Your task to perform on an android device: open app "Indeed Job Search" Image 0: 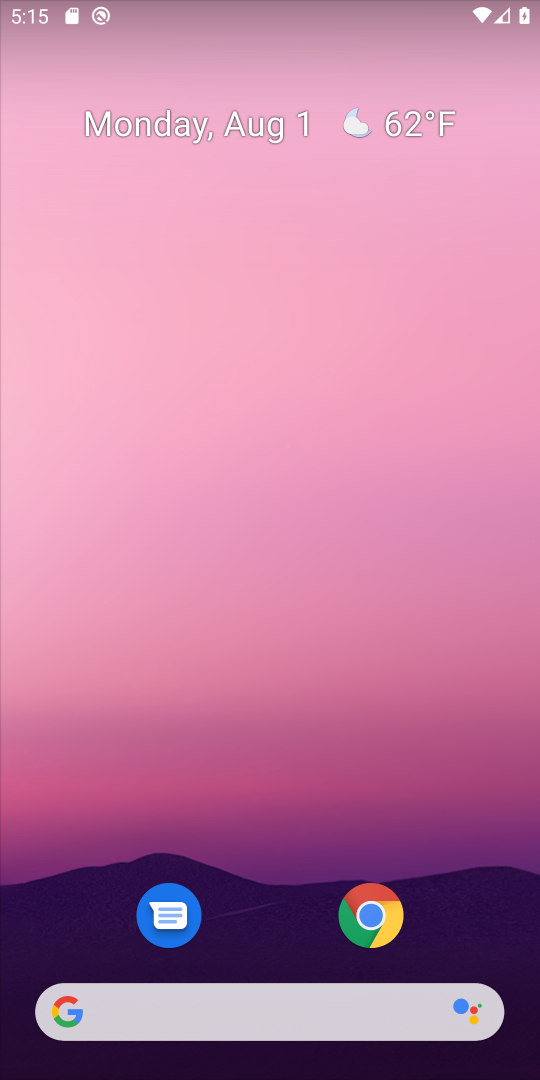
Step 0: drag from (67, 893) to (226, 18)
Your task to perform on an android device: open app "Indeed Job Search" Image 1: 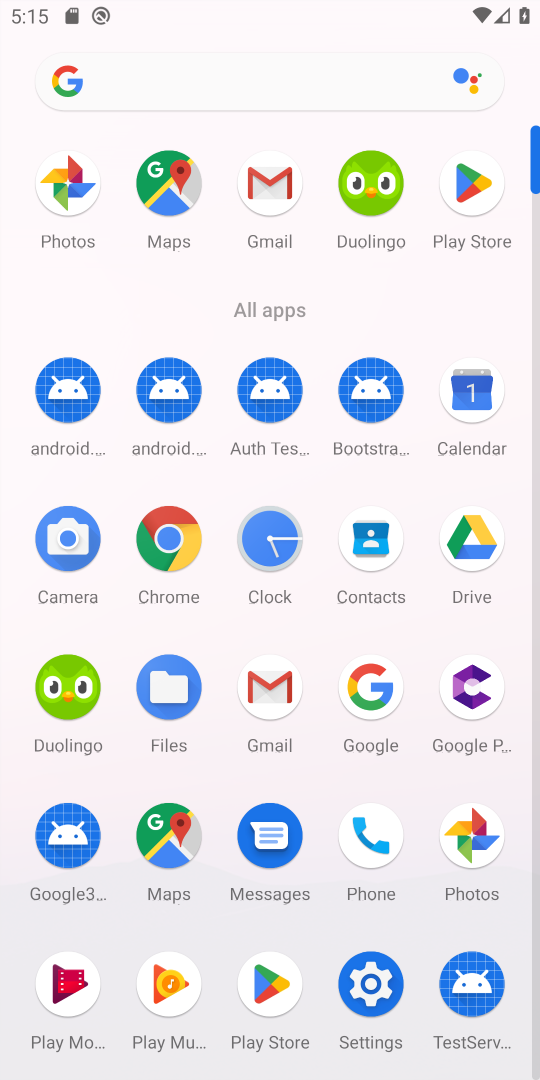
Step 1: click (471, 185)
Your task to perform on an android device: open app "Indeed Job Search" Image 2: 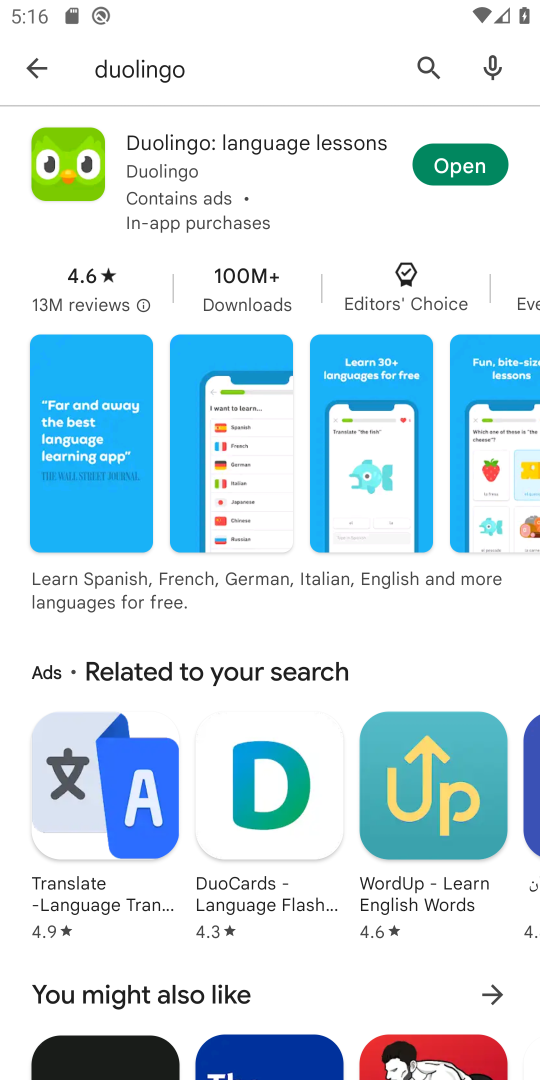
Step 2: click (415, 52)
Your task to perform on an android device: open app "Indeed Job Search" Image 3: 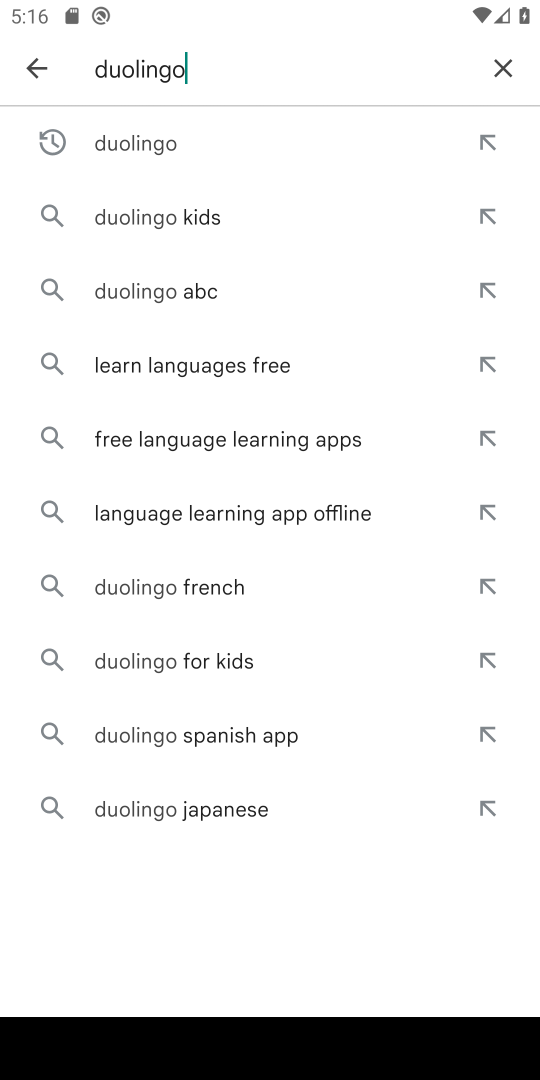
Step 3: click (512, 76)
Your task to perform on an android device: open app "Indeed Job Search" Image 4: 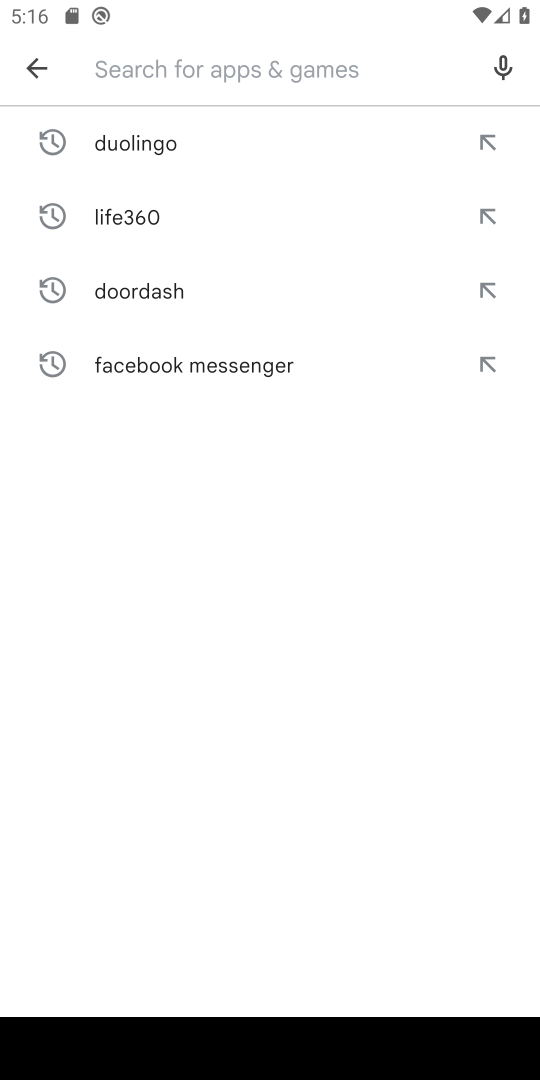
Step 4: click (268, 62)
Your task to perform on an android device: open app "Indeed Job Search" Image 5: 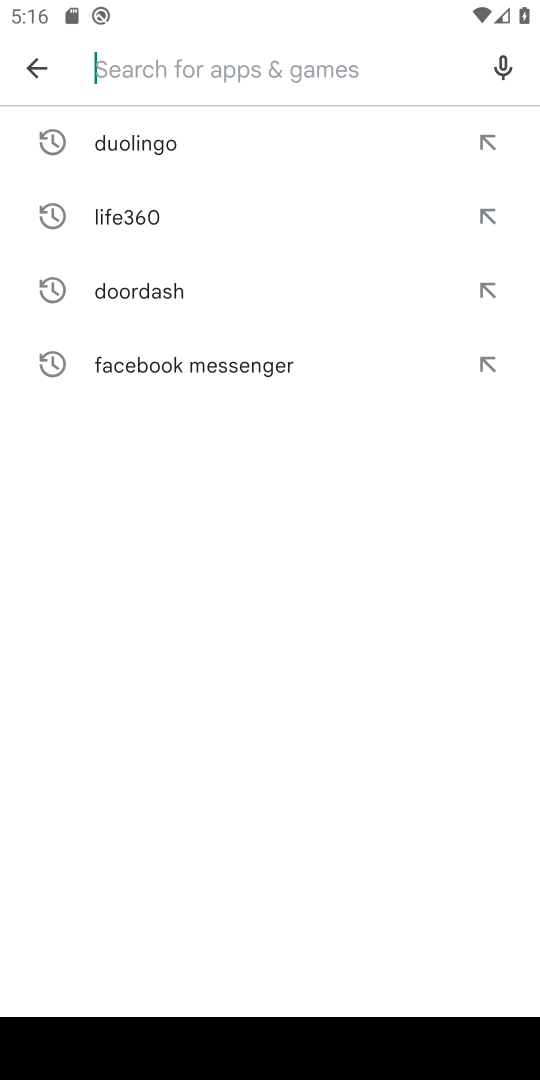
Step 5: type "Indeed Job Search"
Your task to perform on an android device: open app "Indeed Job Search" Image 6: 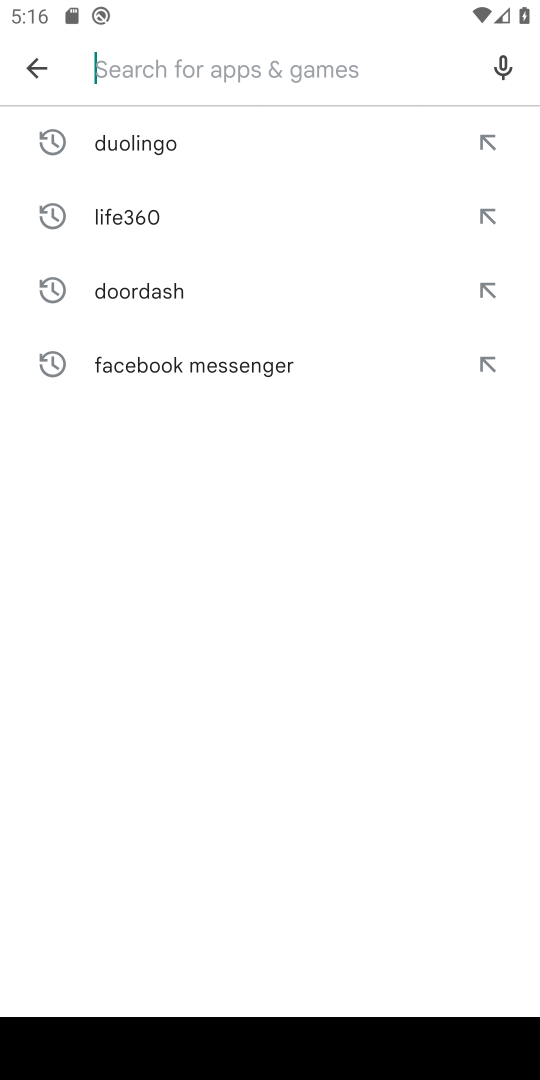
Step 6: click (280, 505)
Your task to perform on an android device: open app "Indeed Job Search" Image 7: 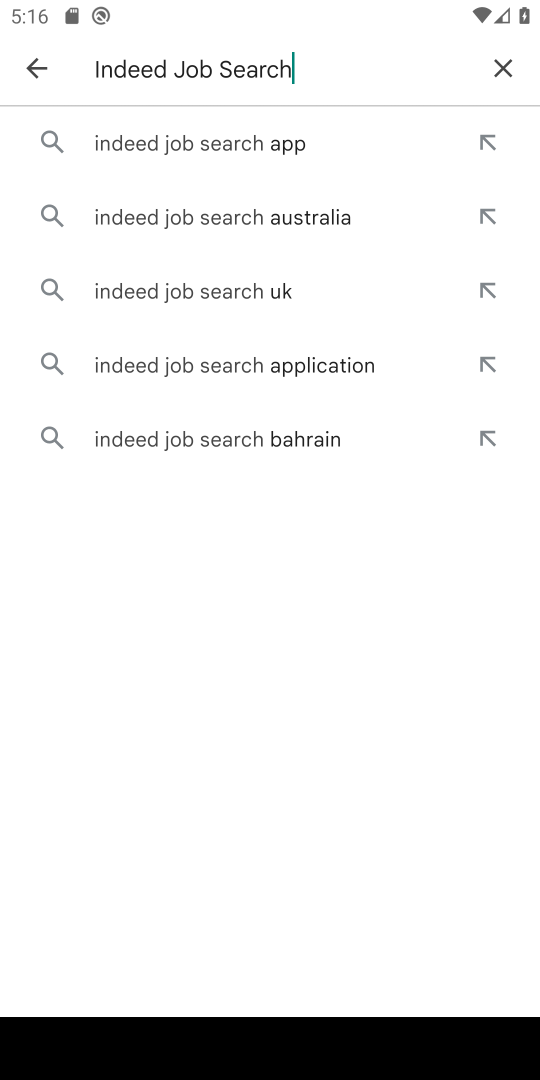
Step 7: click (194, 134)
Your task to perform on an android device: open app "Indeed Job Search" Image 8: 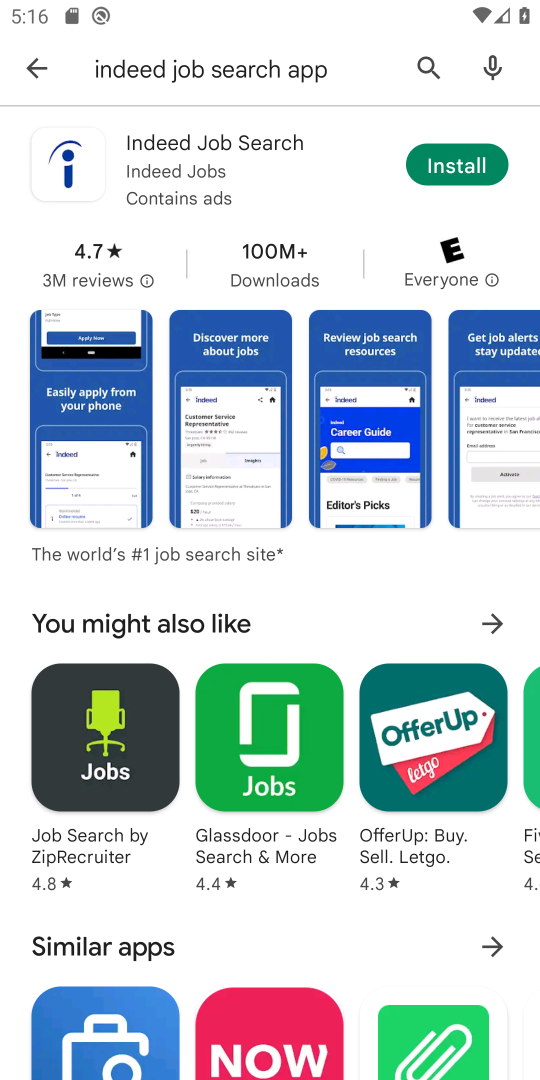
Step 8: task complete